Your task to perform on an android device: Go to sound settings Image 0: 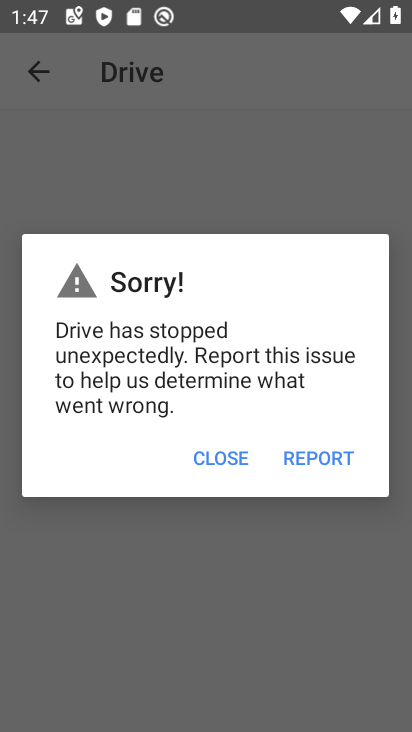
Step 0: press home button
Your task to perform on an android device: Go to sound settings Image 1: 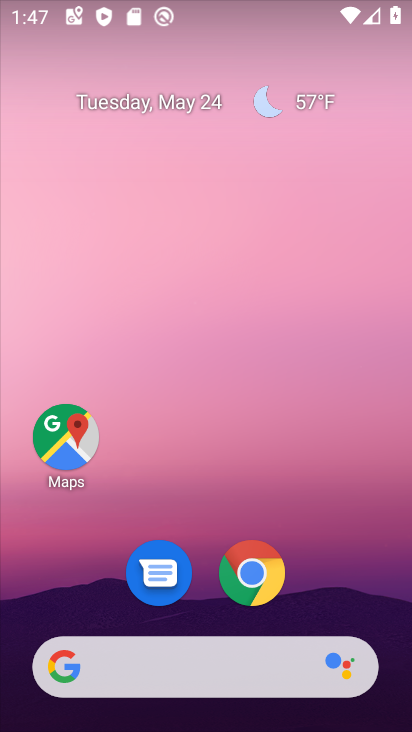
Step 1: drag from (331, 548) to (344, 11)
Your task to perform on an android device: Go to sound settings Image 2: 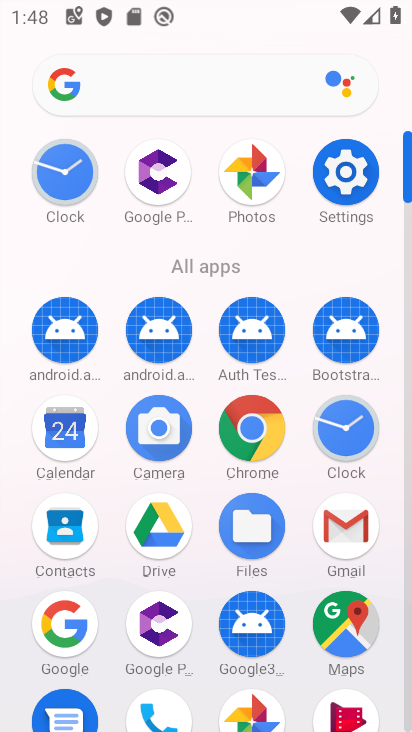
Step 2: click (343, 182)
Your task to perform on an android device: Go to sound settings Image 3: 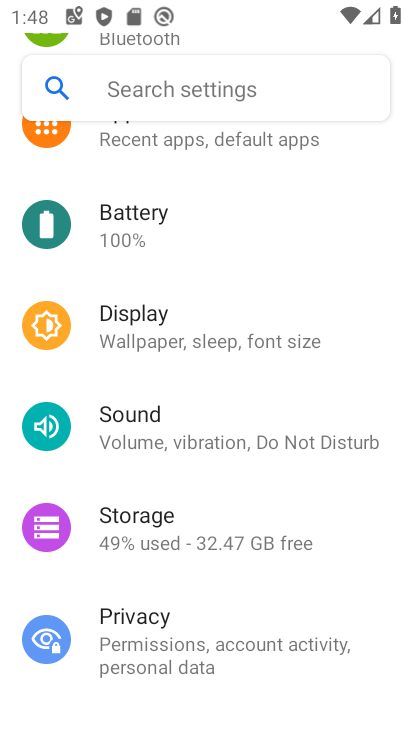
Step 3: click (181, 407)
Your task to perform on an android device: Go to sound settings Image 4: 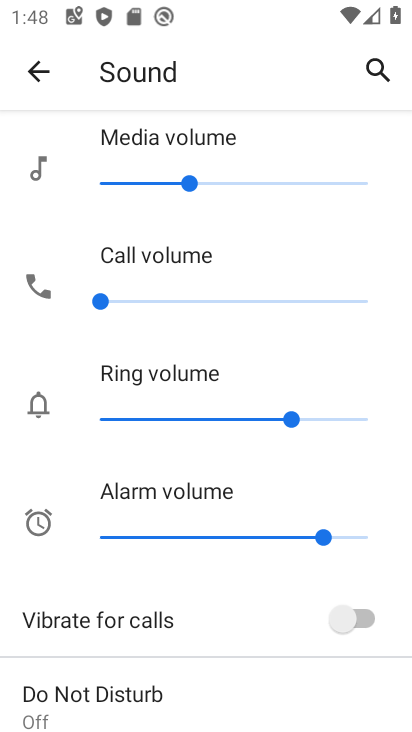
Step 4: task complete